Your task to perform on an android device: Open calendar and show me the second week of next month Image 0: 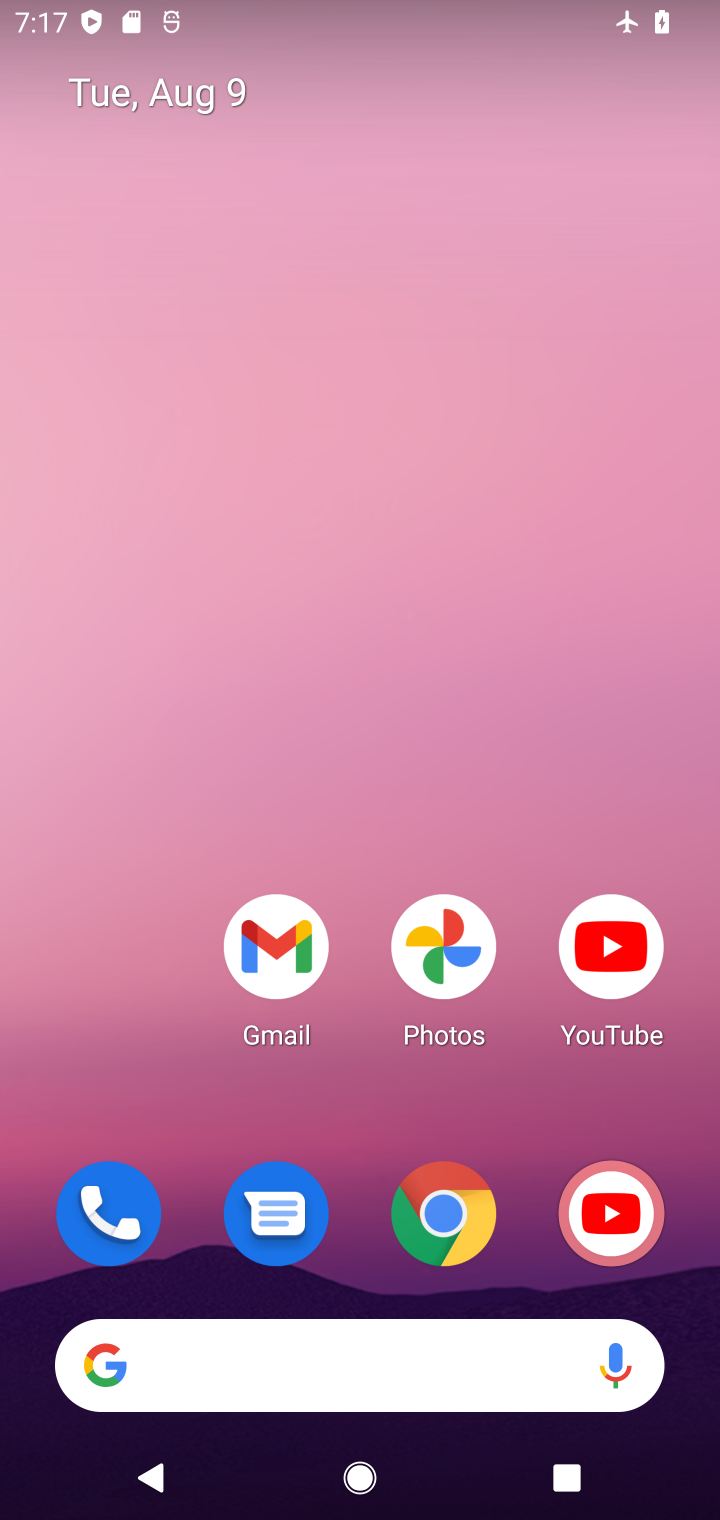
Step 0: drag from (342, 1302) to (178, 314)
Your task to perform on an android device: Open calendar and show me the second week of next month Image 1: 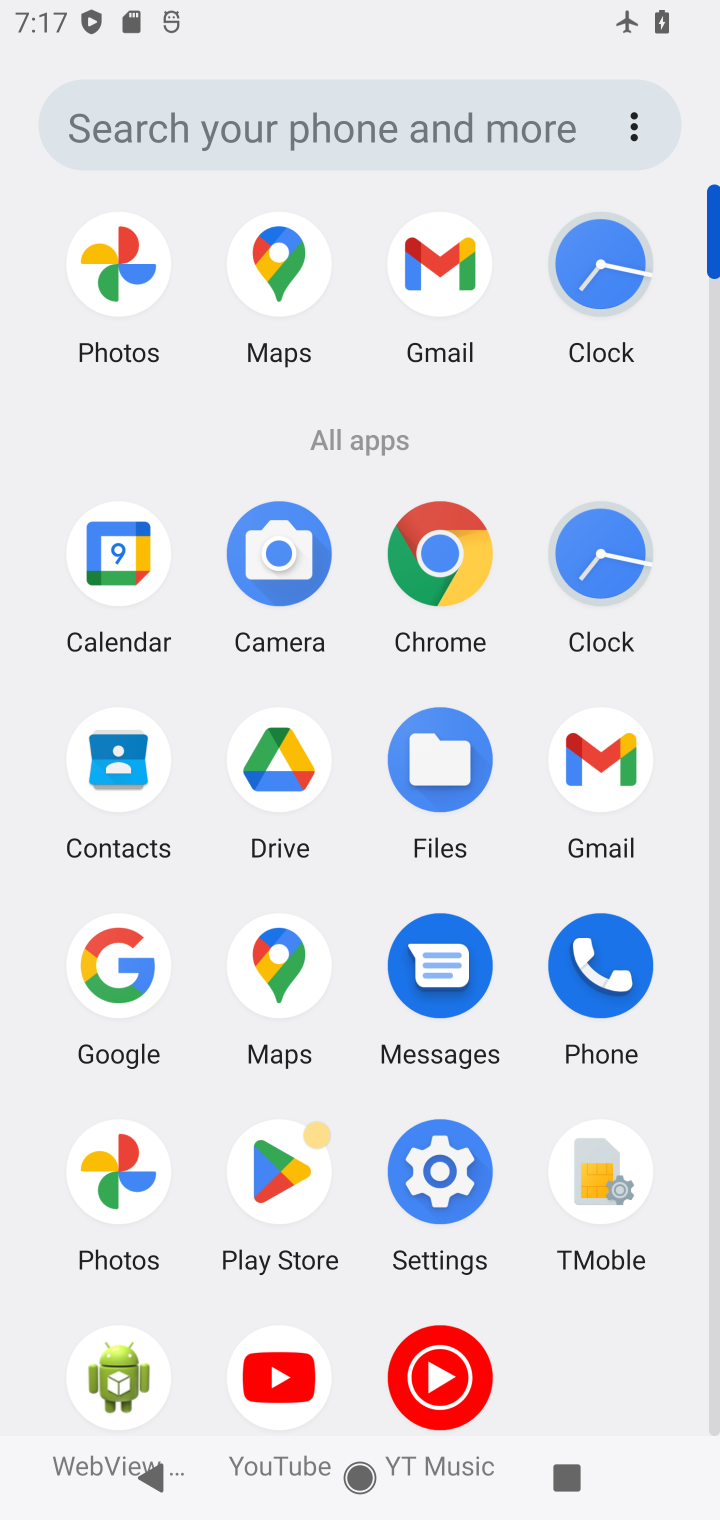
Step 1: click (96, 625)
Your task to perform on an android device: Open calendar and show me the second week of next month Image 2: 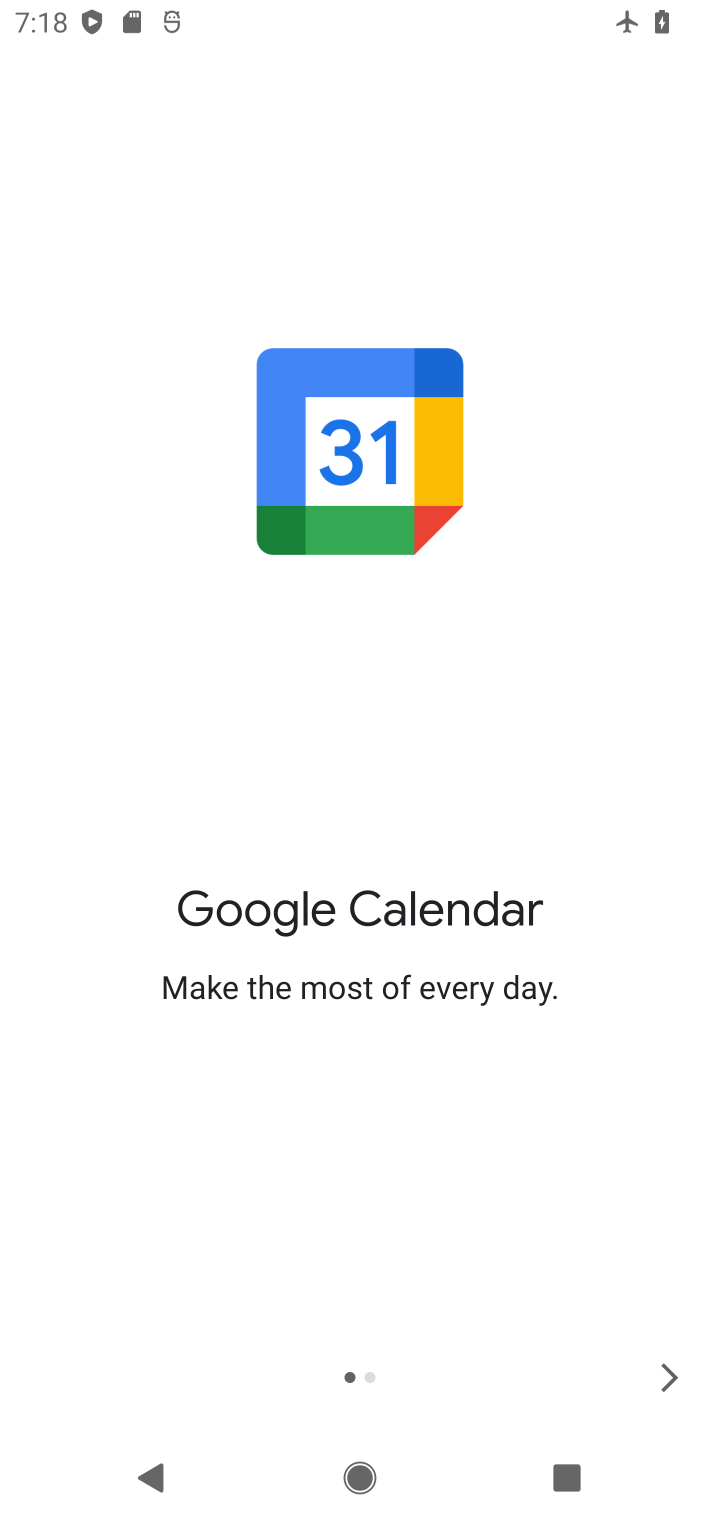
Step 2: click (668, 1386)
Your task to perform on an android device: Open calendar and show me the second week of next month Image 3: 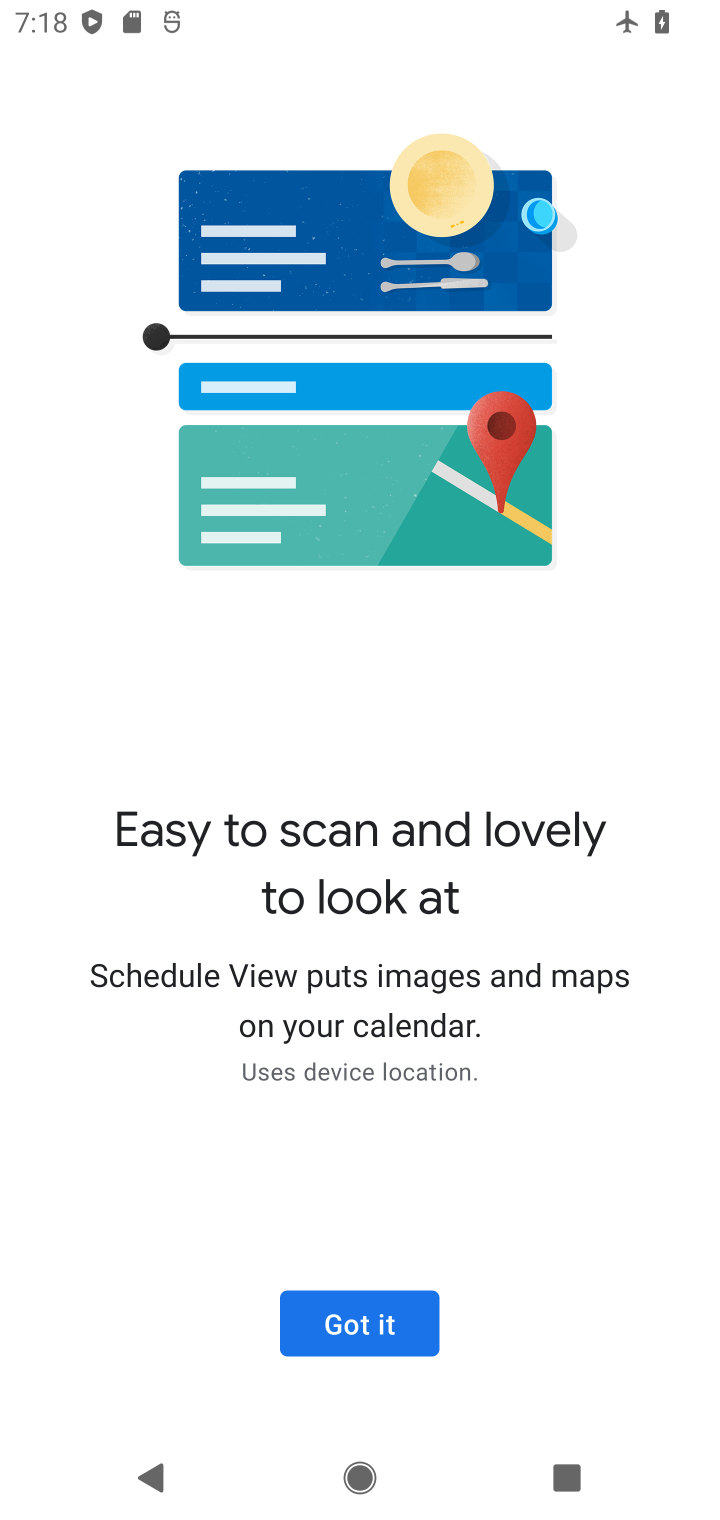
Step 3: click (407, 1335)
Your task to perform on an android device: Open calendar and show me the second week of next month Image 4: 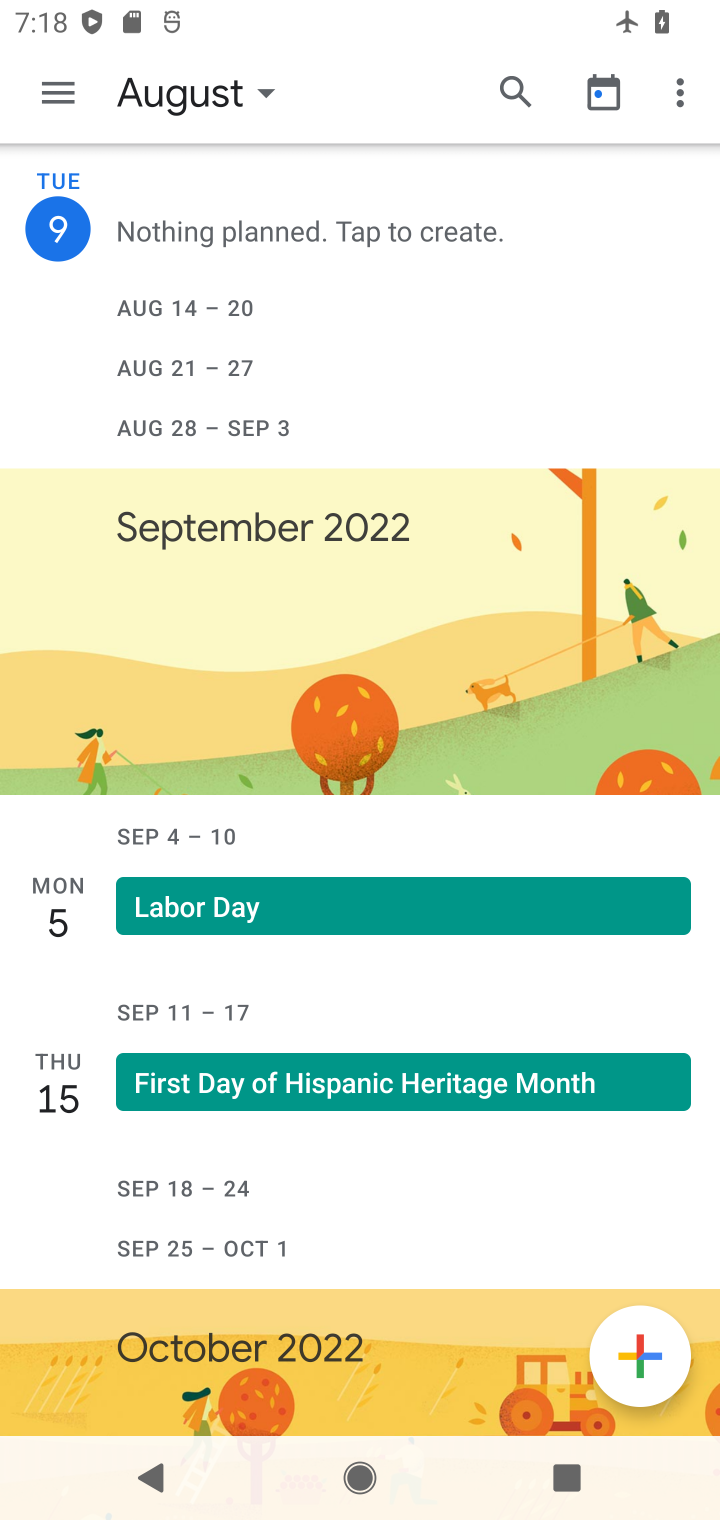
Step 4: click (79, 100)
Your task to perform on an android device: Open calendar and show me the second week of next month Image 5: 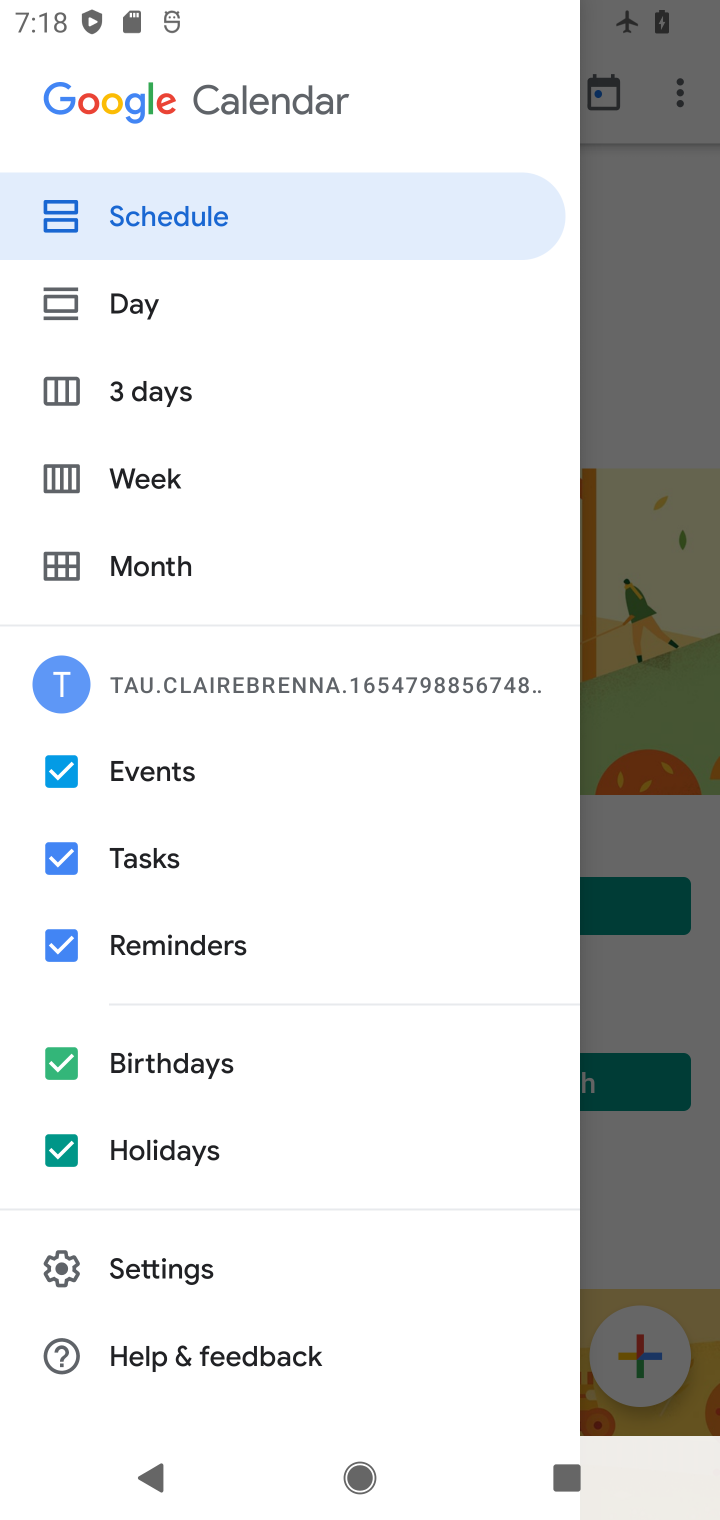
Step 5: click (188, 460)
Your task to perform on an android device: Open calendar and show me the second week of next month Image 6: 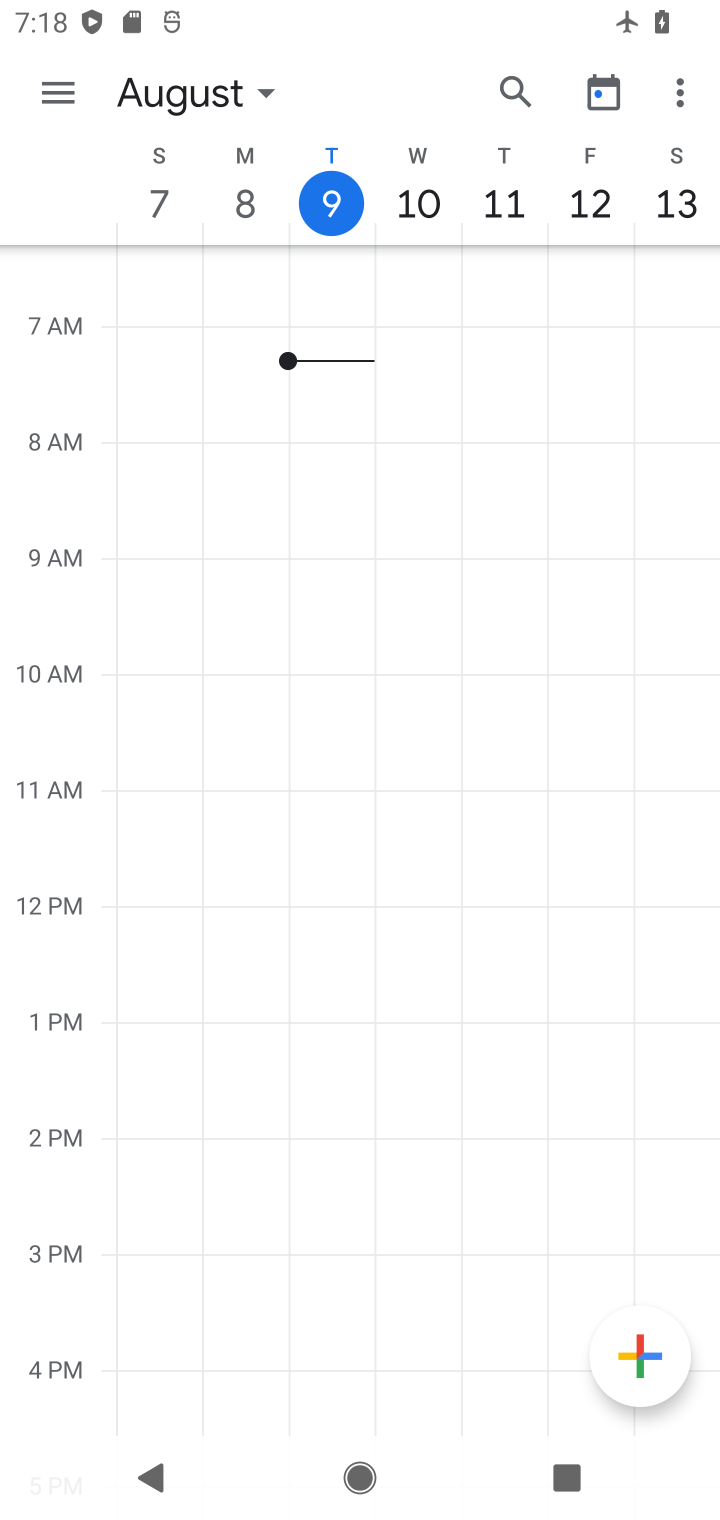
Step 6: task complete